Your task to perform on an android device: change the clock display to digital Image 0: 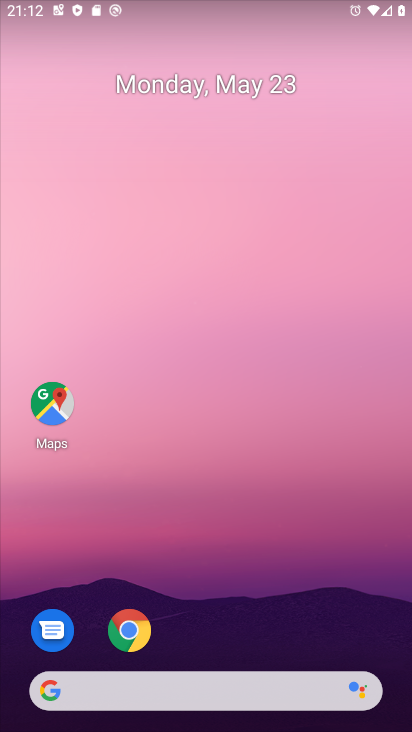
Step 0: drag from (212, 590) to (212, 306)
Your task to perform on an android device: change the clock display to digital Image 1: 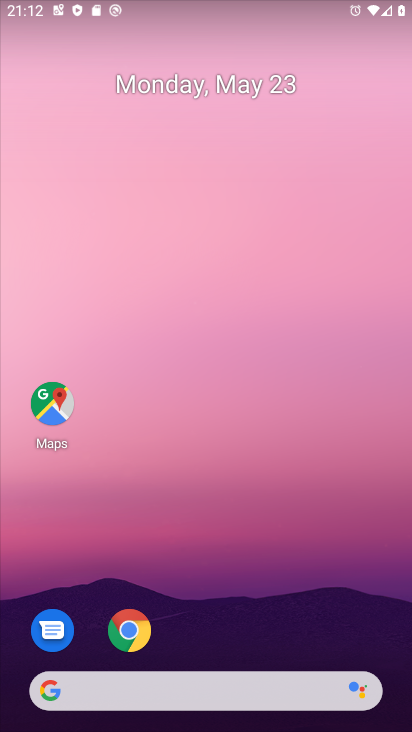
Step 1: drag from (172, 660) to (166, 188)
Your task to perform on an android device: change the clock display to digital Image 2: 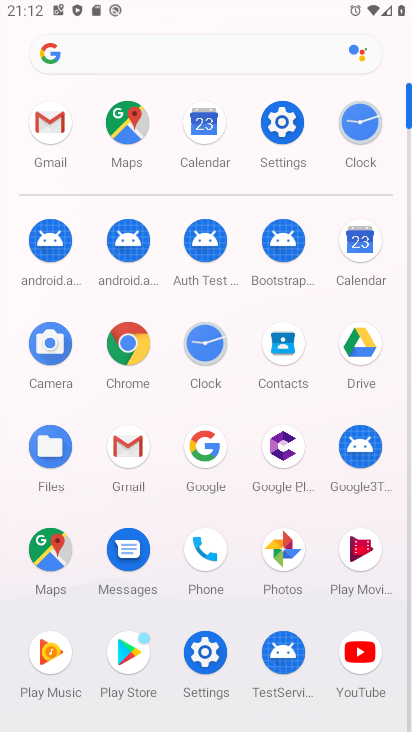
Step 2: click (351, 131)
Your task to perform on an android device: change the clock display to digital Image 3: 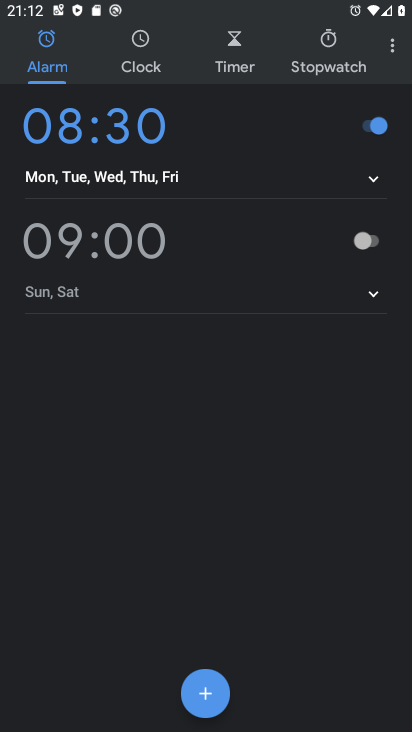
Step 3: click (391, 50)
Your task to perform on an android device: change the clock display to digital Image 4: 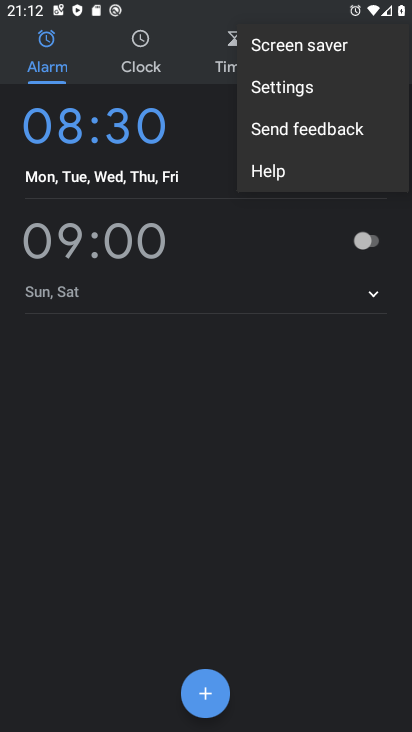
Step 4: click (279, 92)
Your task to perform on an android device: change the clock display to digital Image 5: 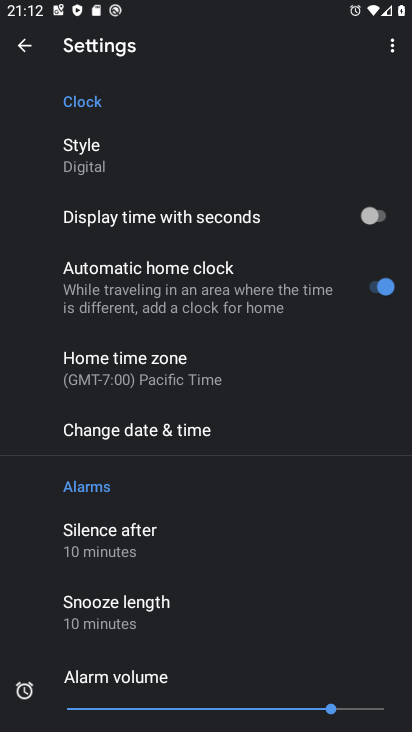
Step 5: click (106, 170)
Your task to perform on an android device: change the clock display to digital Image 6: 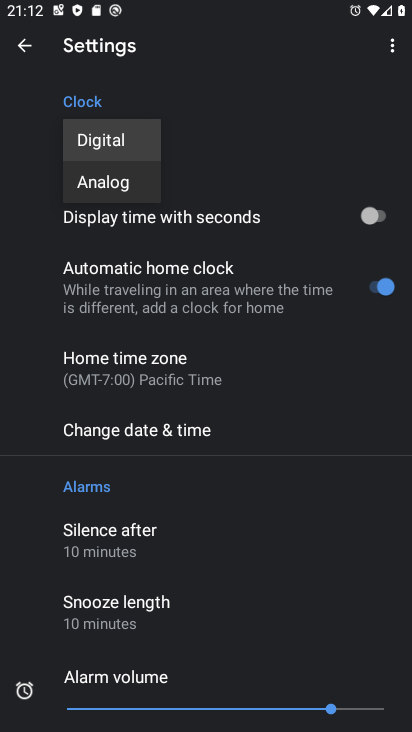
Step 6: click (110, 134)
Your task to perform on an android device: change the clock display to digital Image 7: 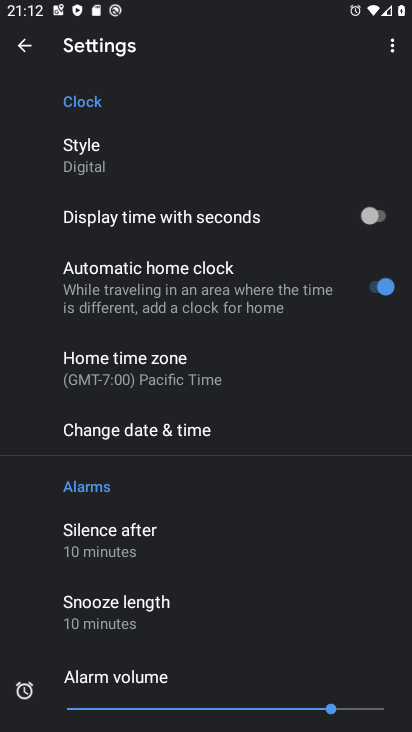
Step 7: task complete